Your task to perform on an android device: Check the best rated table lamp on Crate and Barrel Image 0: 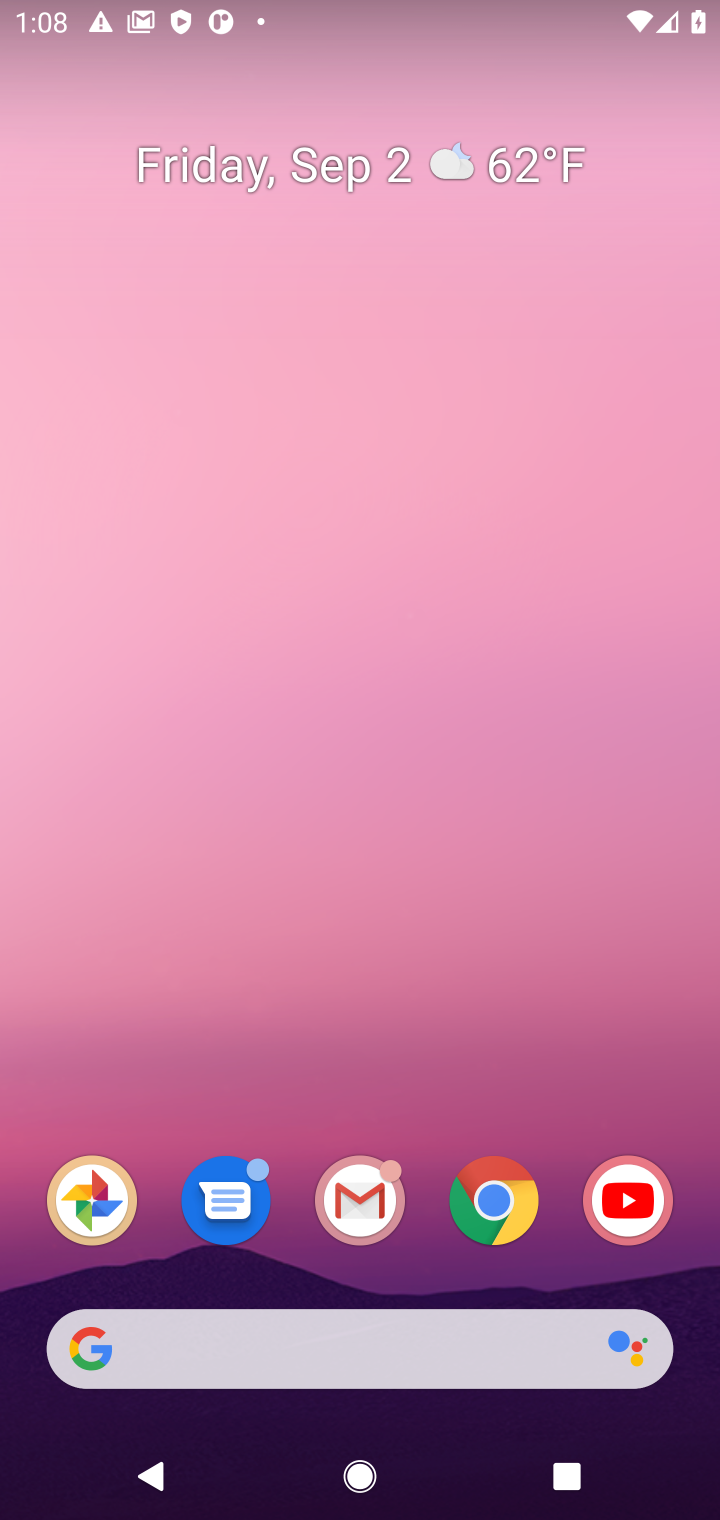
Step 0: click (34, 1248)
Your task to perform on an android device: Check the best rated table lamp on Crate and Barrel Image 1: 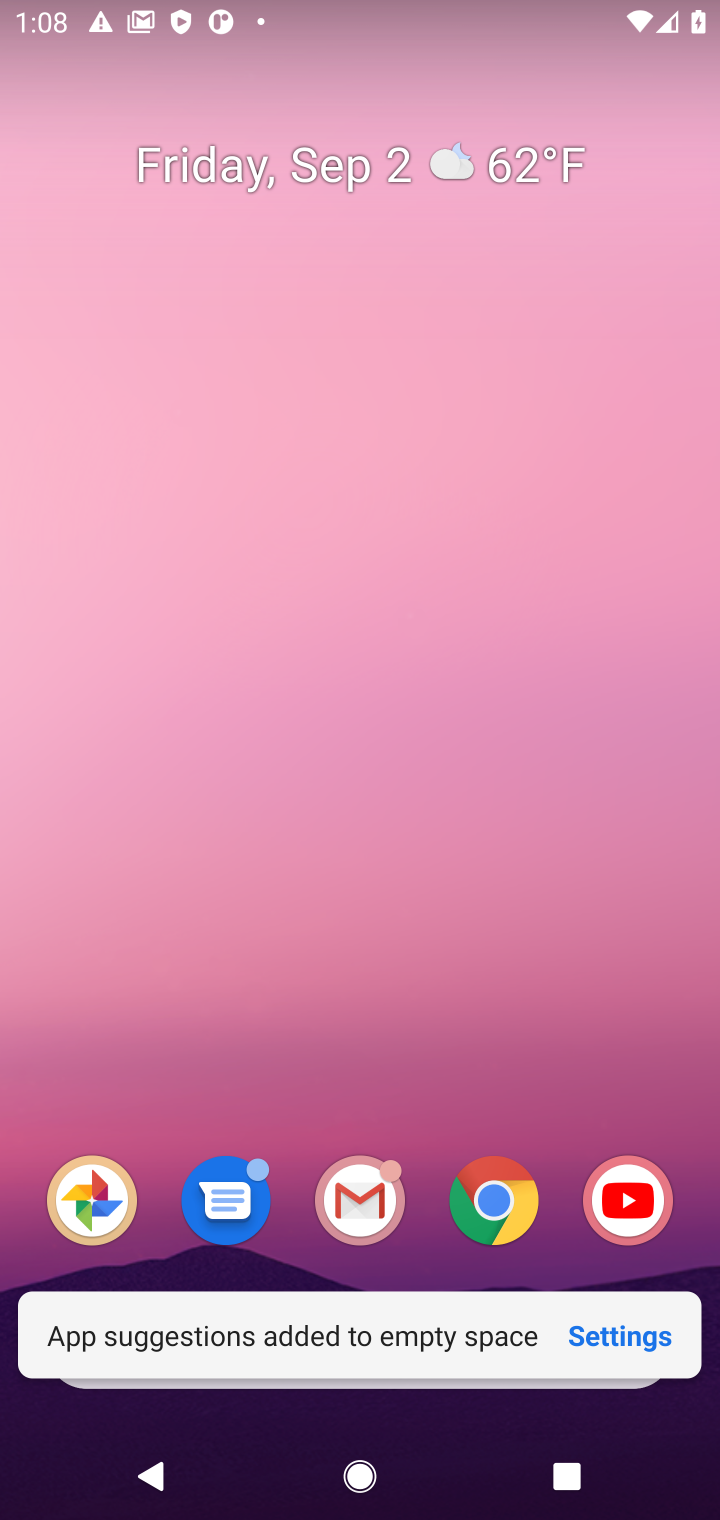
Step 1: click (505, 1198)
Your task to perform on an android device: Check the best rated table lamp on Crate and Barrel Image 2: 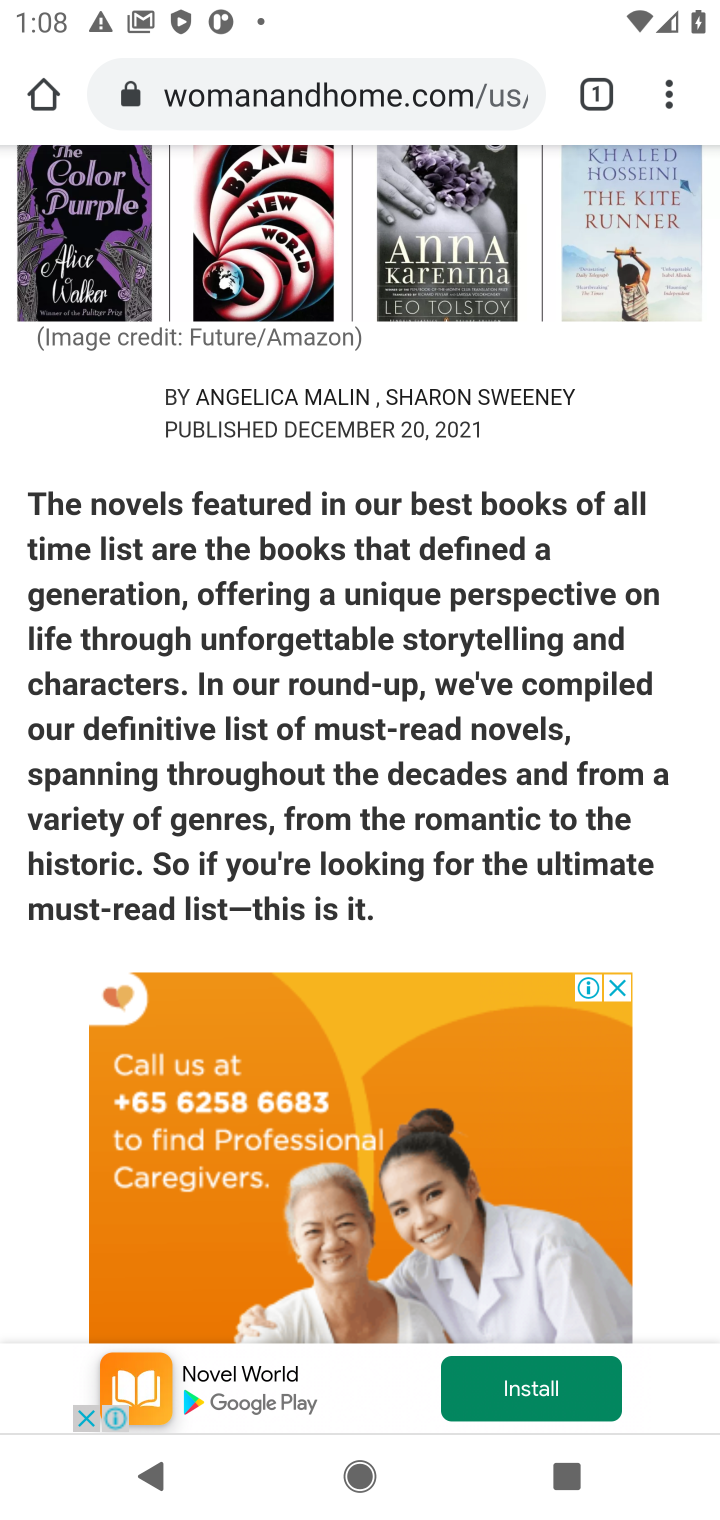
Step 2: click (358, 95)
Your task to perform on an android device: Check the best rated table lamp on Crate and Barrel Image 3: 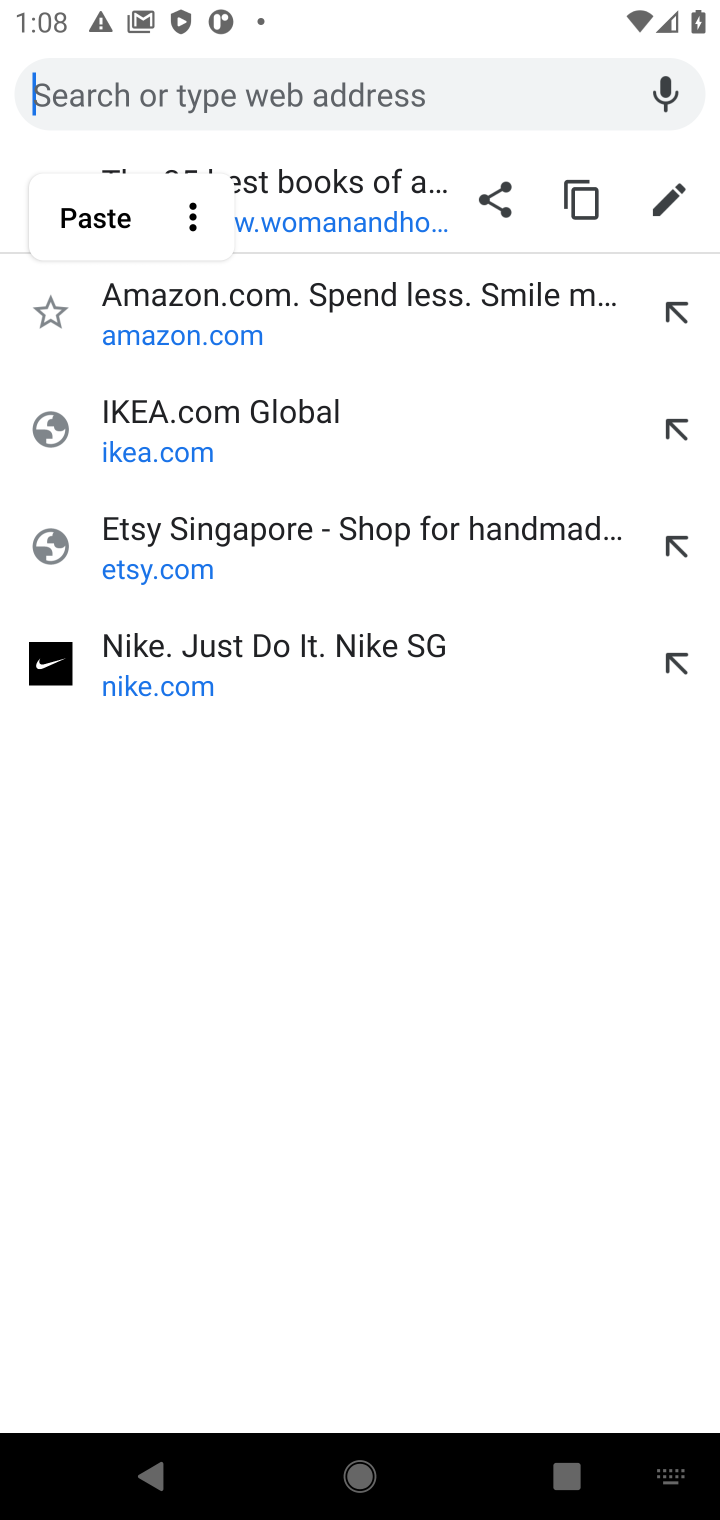
Step 3: type "Crate and Barrel"
Your task to perform on an android device: Check the best rated table lamp on Crate and Barrel Image 4: 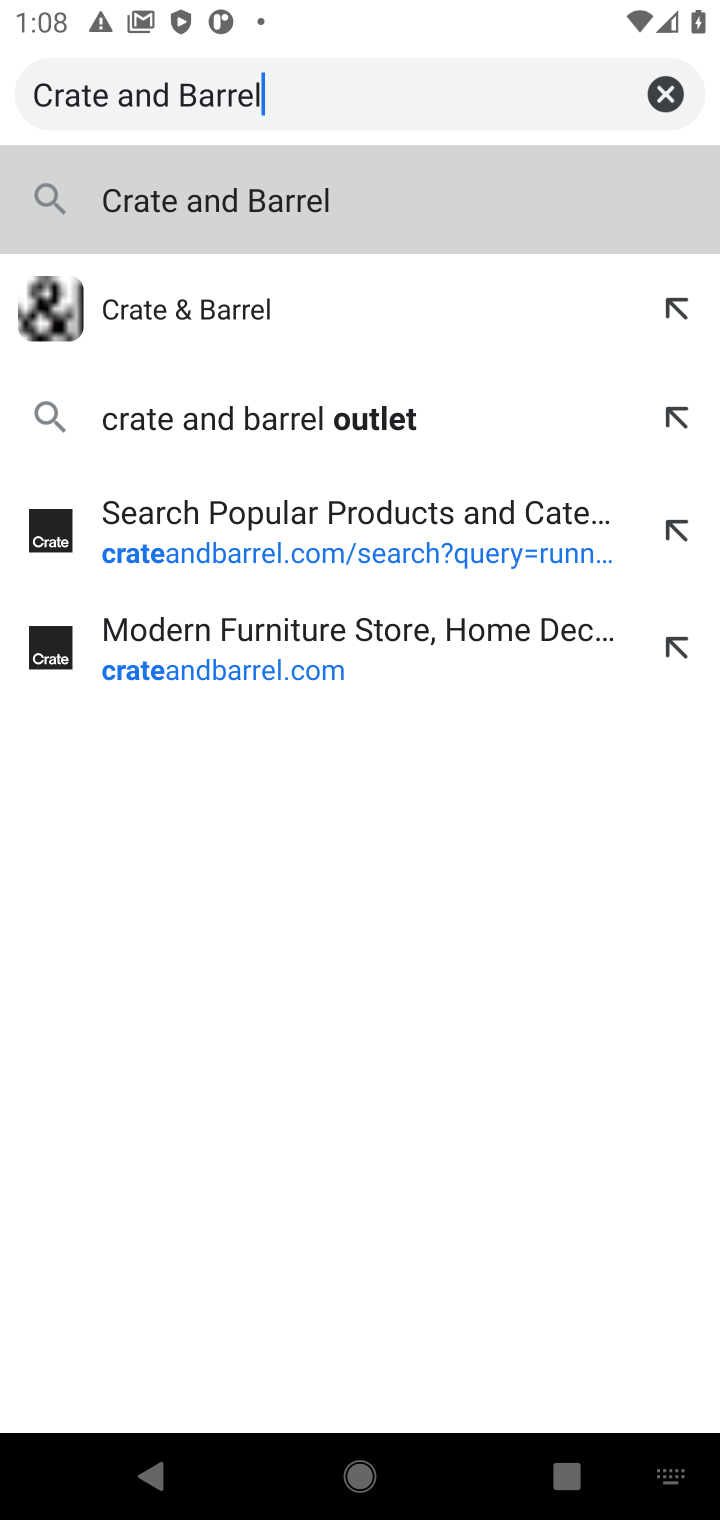
Step 4: press enter
Your task to perform on an android device: Check the best rated table lamp on Crate and Barrel Image 5: 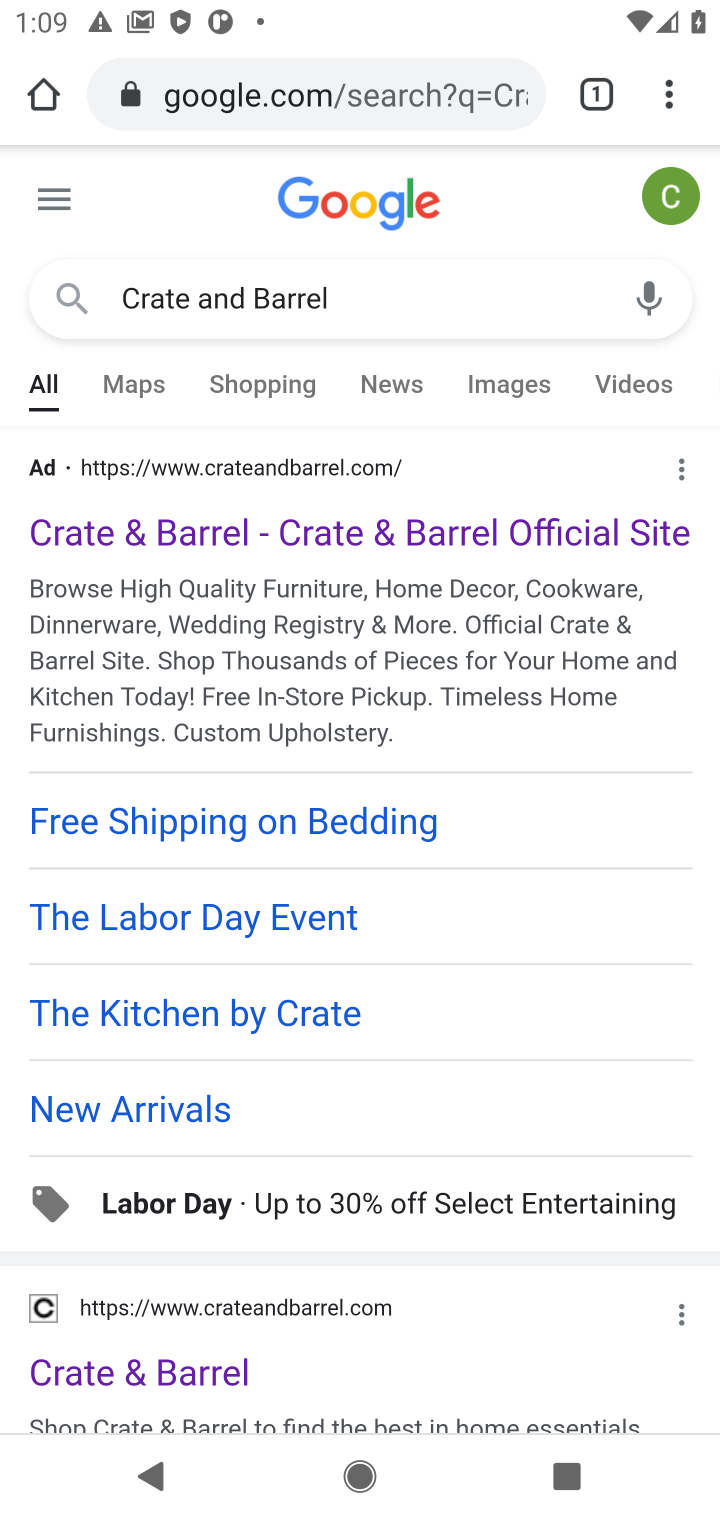
Step 5: click (195, 1366)
Your task to perform on an android device: Check the best rated table lamp on Crate and Barrel Image 6: 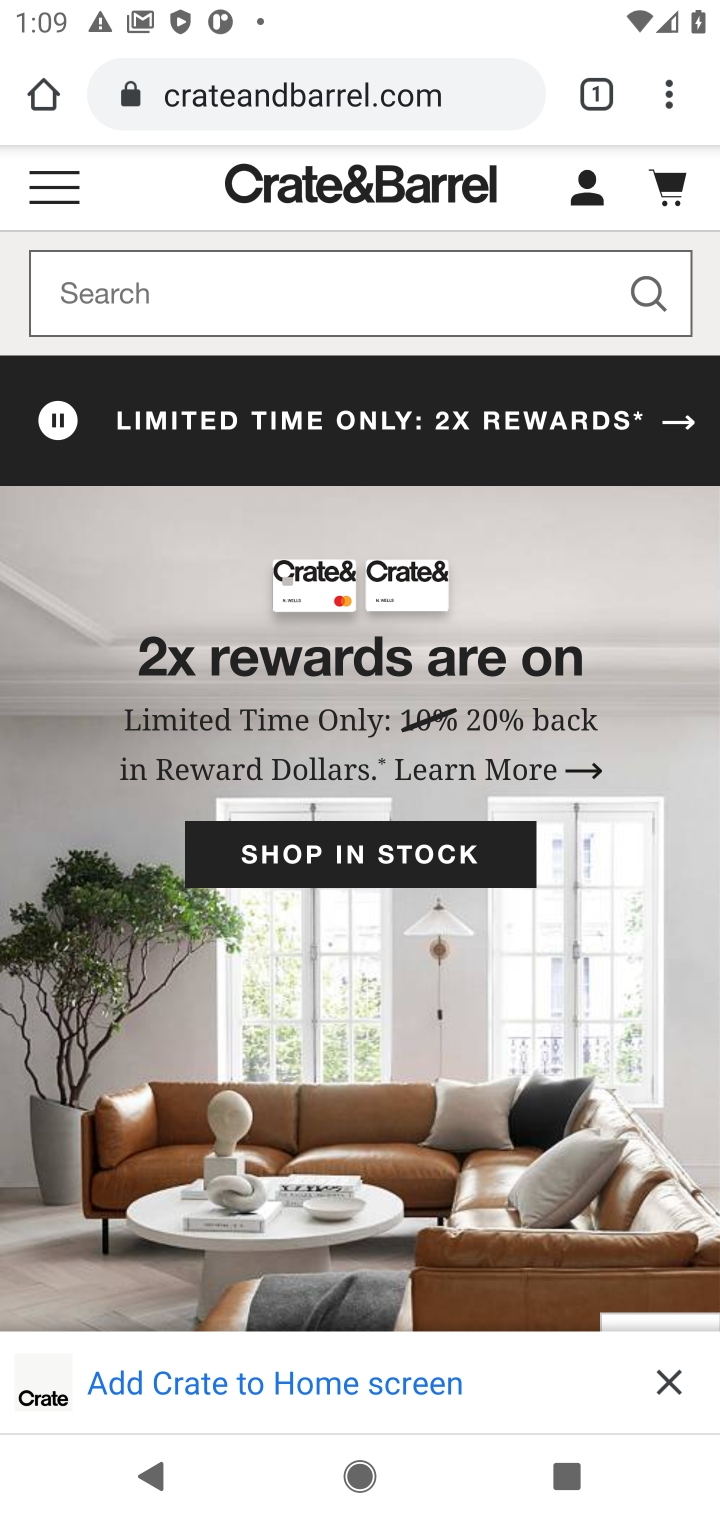
Step 6: click (319, 290)
Your task to perform on an android device: Check the best rated table lamp on Crate and Barrel Image 7: 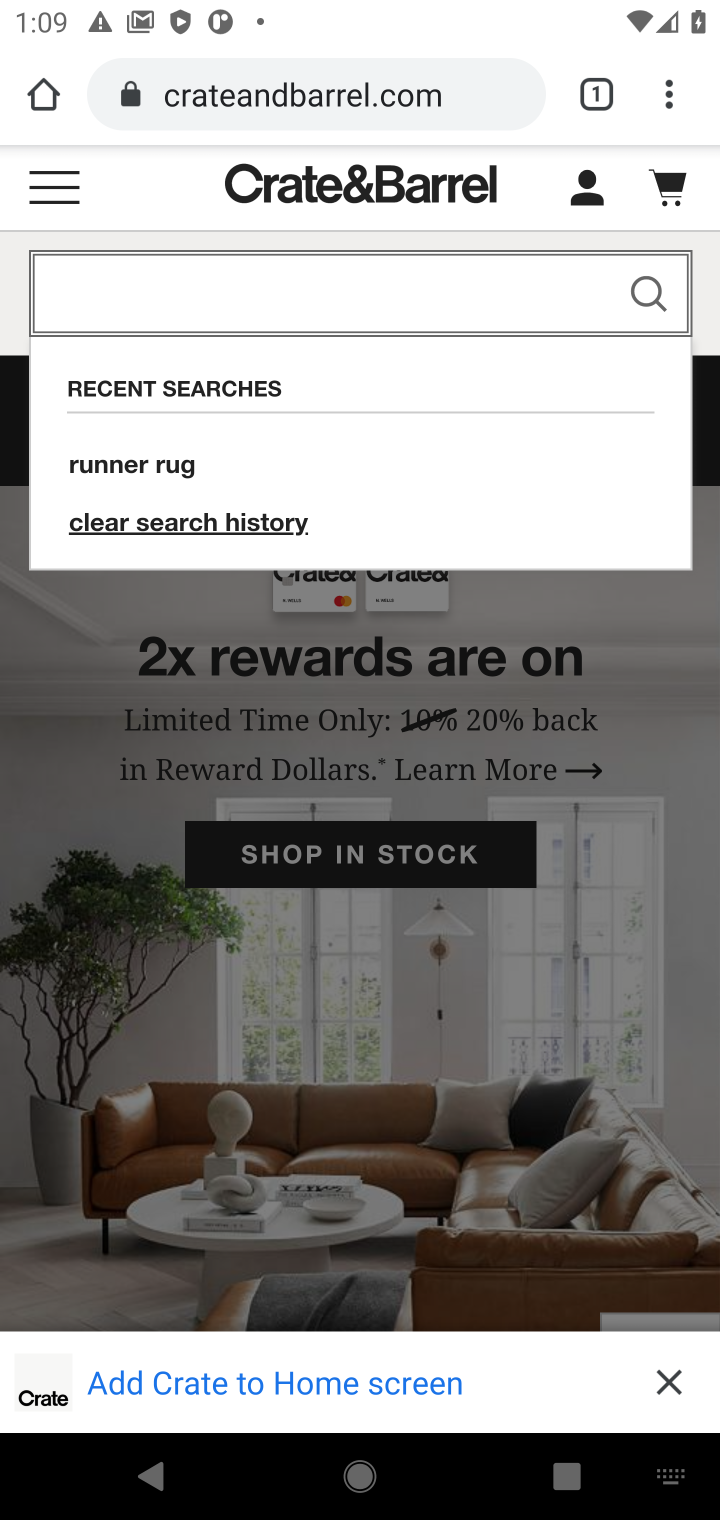
Step 7: type " table lamp"
Your task to perform on an android device: Check the best rated table lamp on Crate and Barrel Image 8: 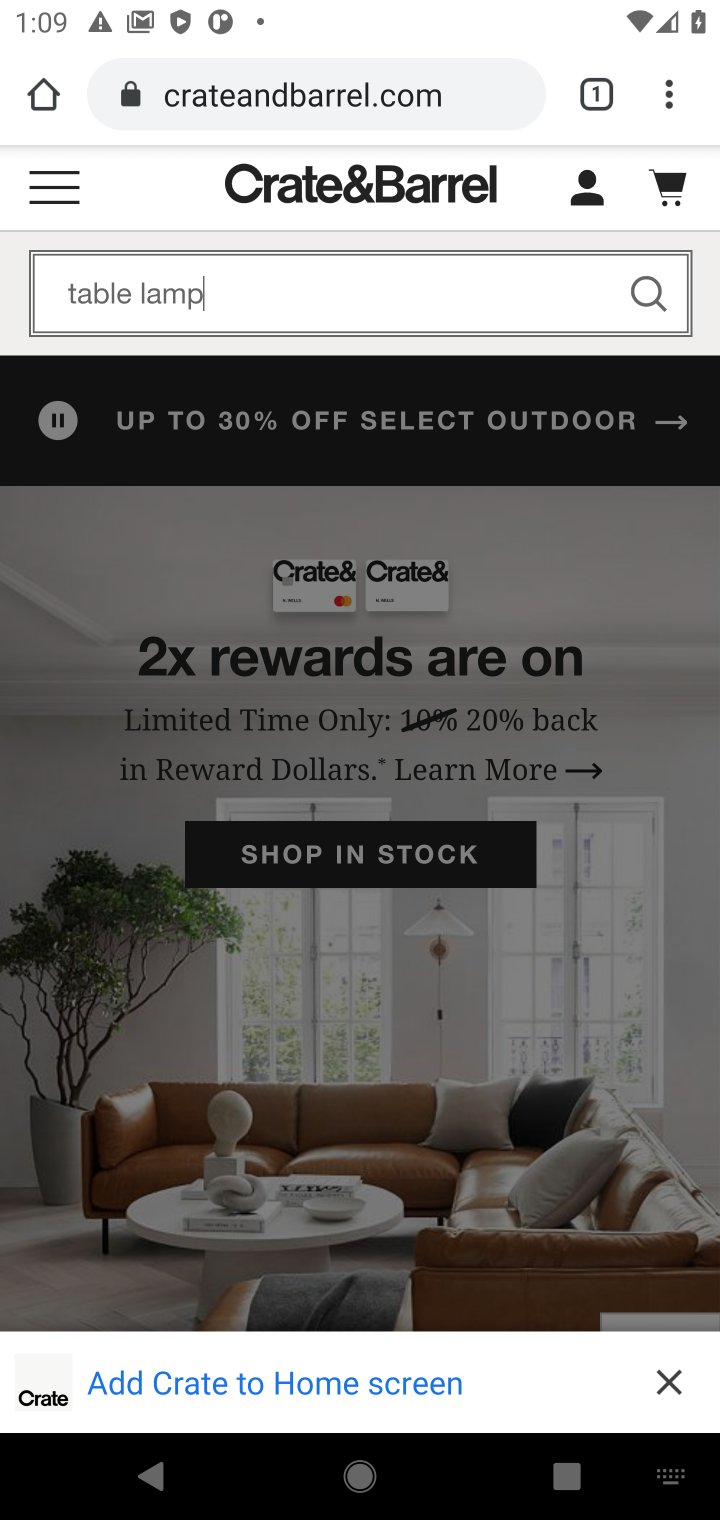
Step 8: press enter
Your task to perform on an android device: Check the best rated table lamp on Crate and Barrel Image 9: 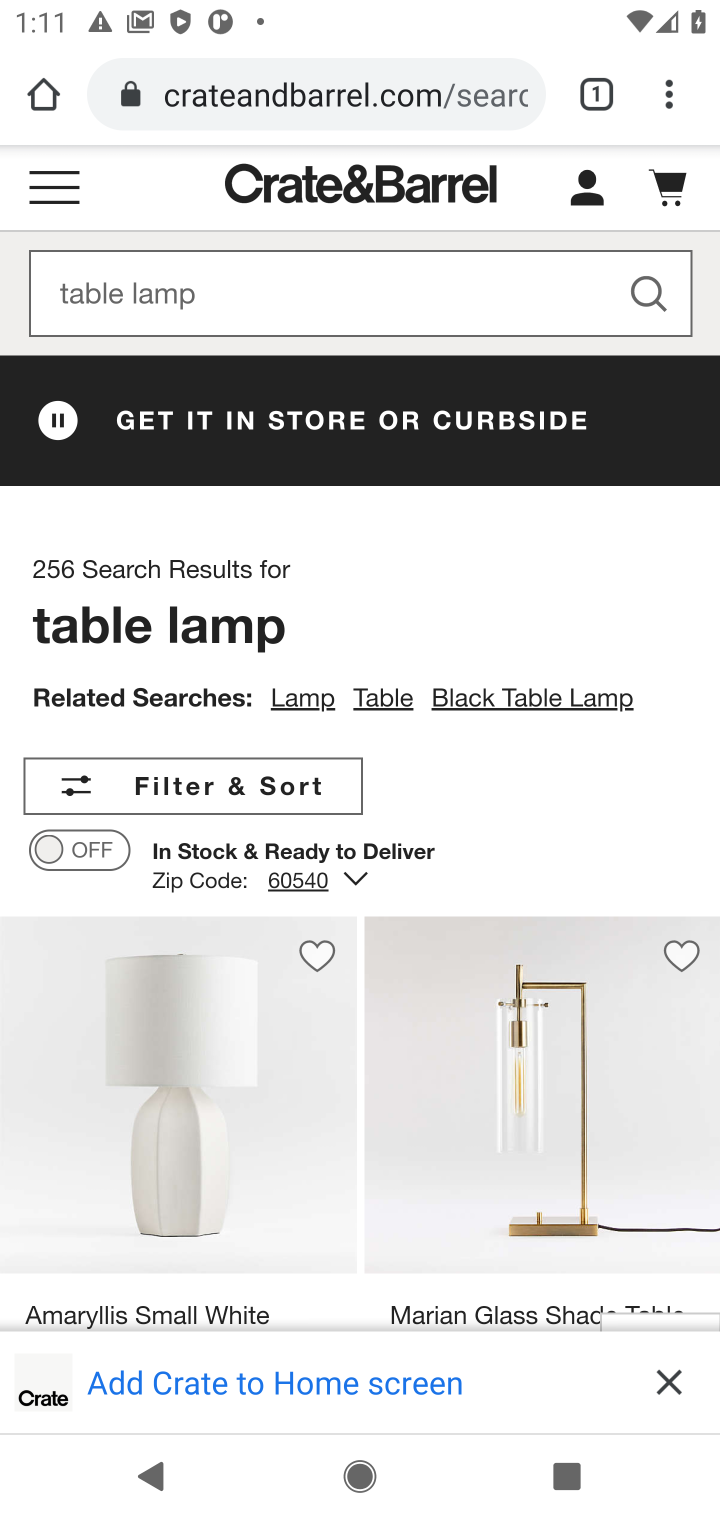
Step 9: task complete